Your task to perform on an android device: Show me recent news Image 0: 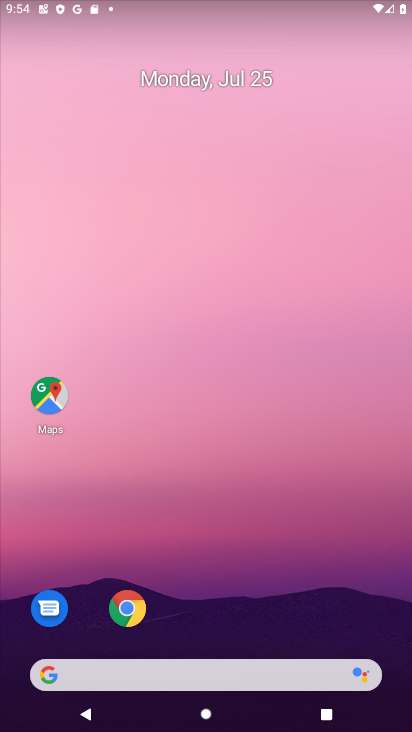
Step 0: drag from (183, 626) to (210, 243)
Your task to perform on an android device: Show me recent news Image 1: 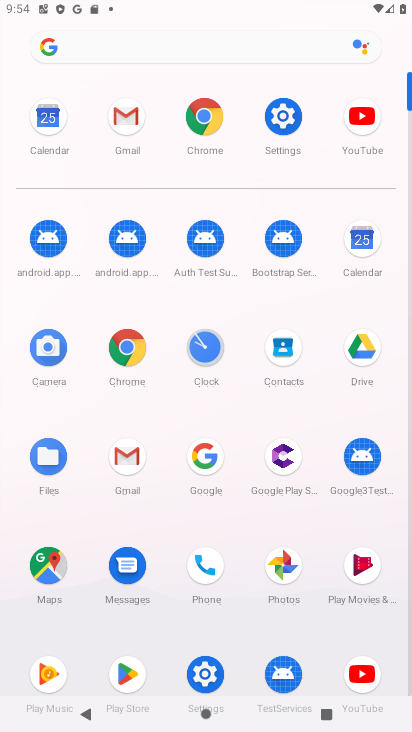
Step 1: click (202, 108)
Your task to perform on an android device: Show me recent news Image 2: 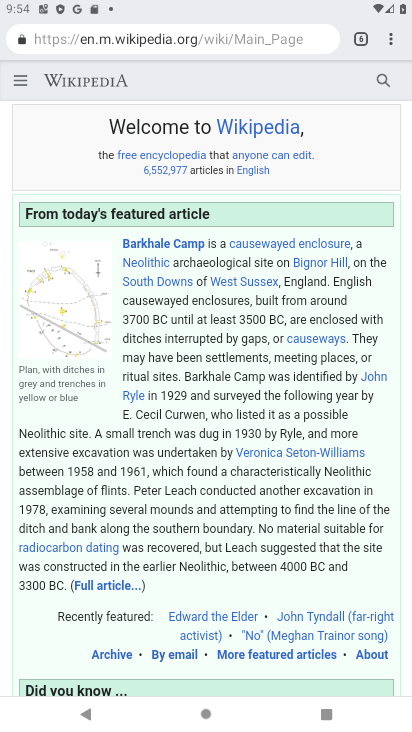
Step 2: click (390, 44)
Your task to perform on an android device: Show me recent news Image 3: 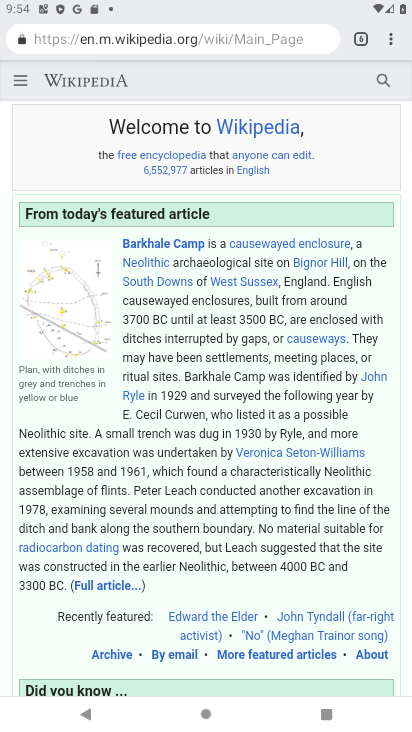
Step 3: click (390, 44)
Your task to perform on an android device: Show me recent news Image 4: 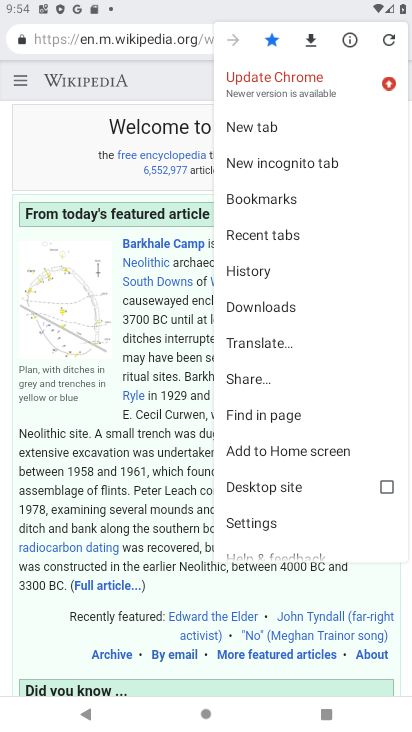
Step 4: click (277, 128)
Your task to perform on an android device: Show me recent news Image 5: 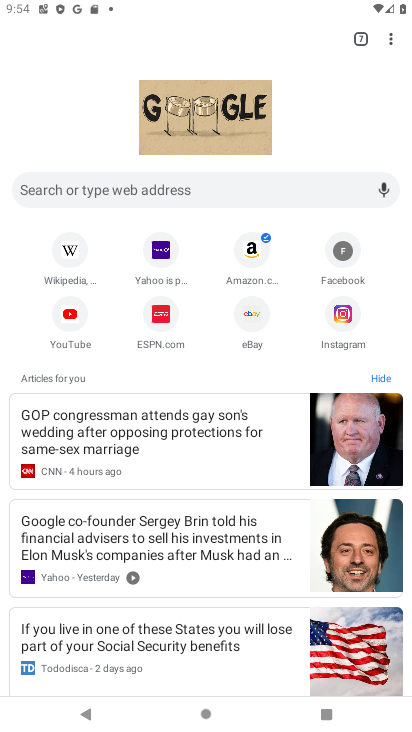
Step 5: click (164, 179)
Your task to perform on an android device: Show me recent news Image 6: 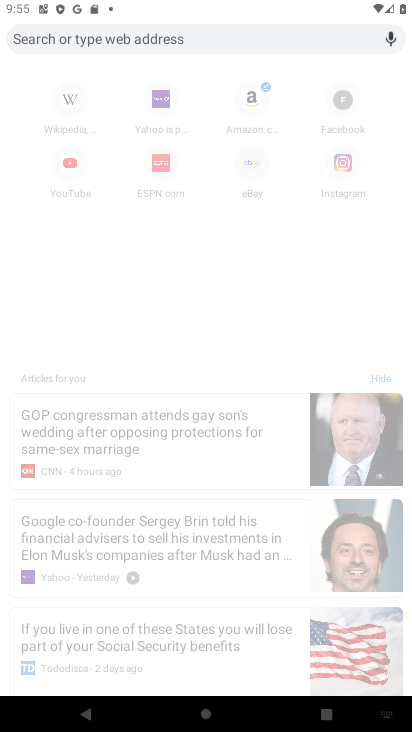
Step 6: type "Show me recent news "
Your task to perform on an android device: Show me recent news Image 7: 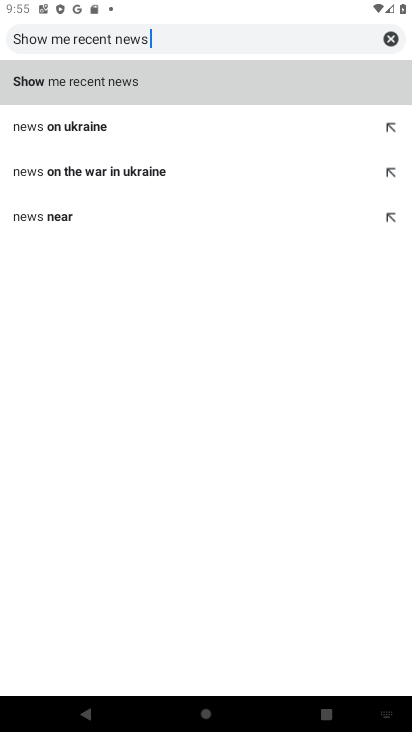
Step 7: click (57, 82)
Your task to perform on an android device: Show me recent news Image 8: 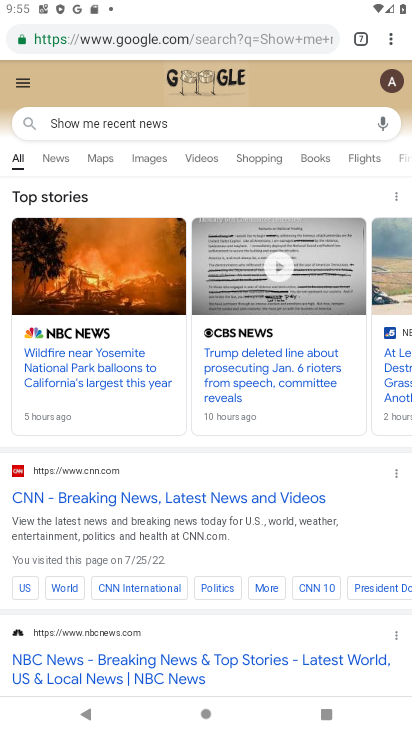
Step 8: task complete